Your task to perform on an android device: toggle location history Image 0: 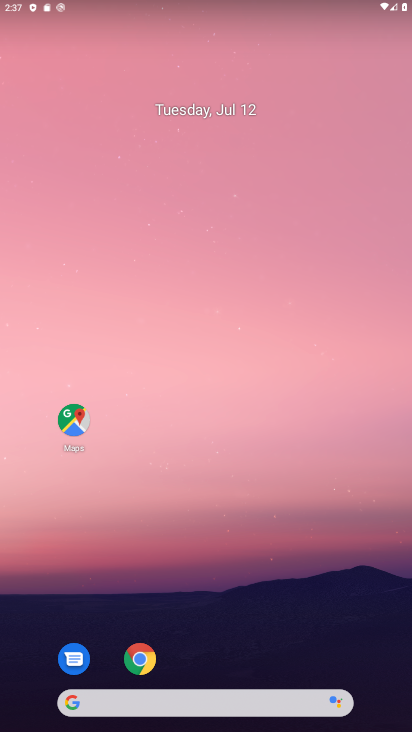
Step 0: drag from (246, 111) to (242, 65)
Your task to perform on an android device: toggle location history Image 1: 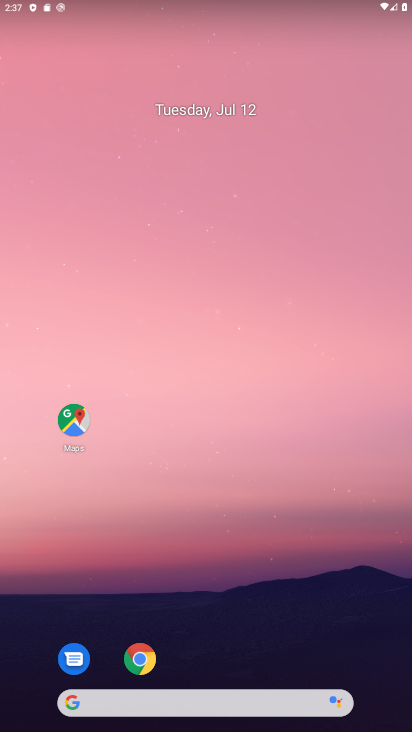
Step 1: drag from (186, 615) to (68, 94)
Your task to perform on an android device: toggle location history Image 2: 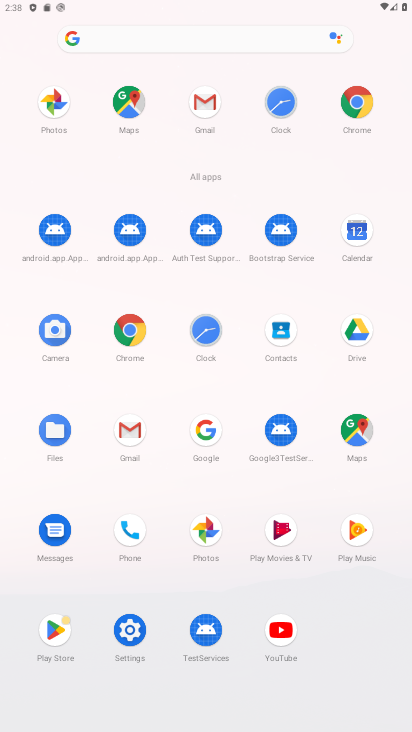
Step 2: click (367, 423)
Your task to perform on an android device: toggle location history Image 3: 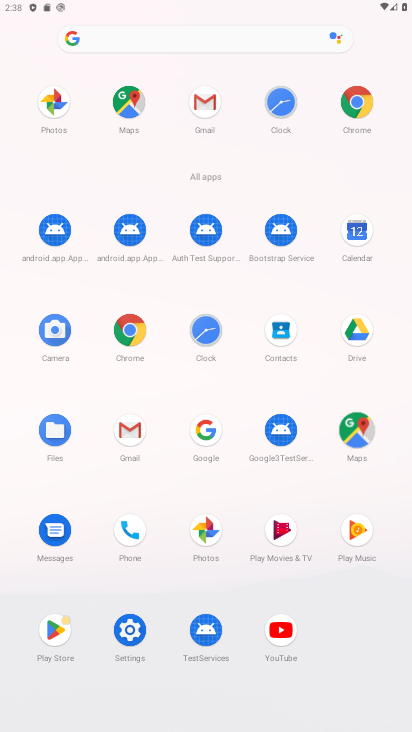
Step 3: click (368, 425)
Your task to perform on an android device: toggle location history Image 4: 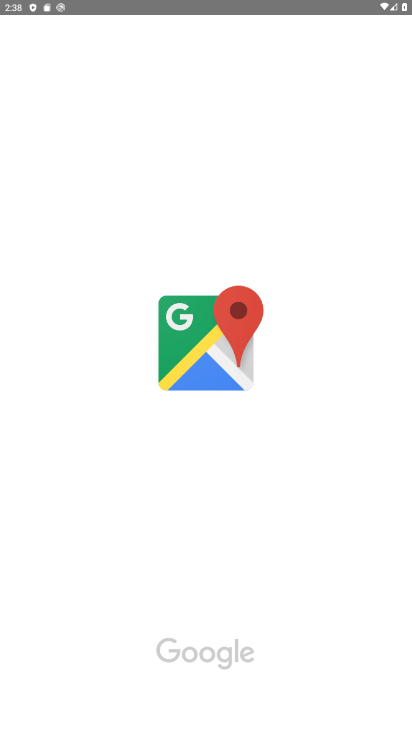
Step 4: click (368, 425)
Your task to perform on an android device: toggle location history Image 5: 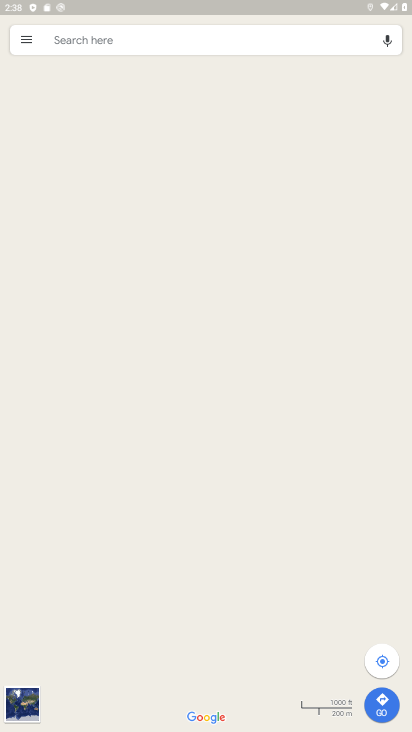
Step 5: click (17, 41)
Your task to perform on an android device: toggle location history Image 6: 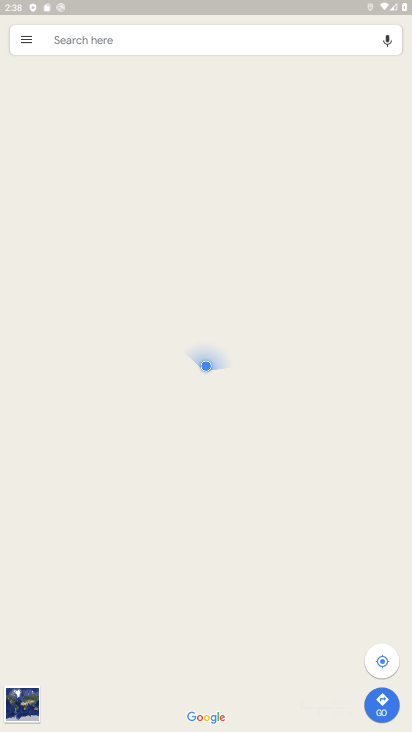
Step 6: click (14, 42)
Your task to perform on an android device: toggle location history Image 7: 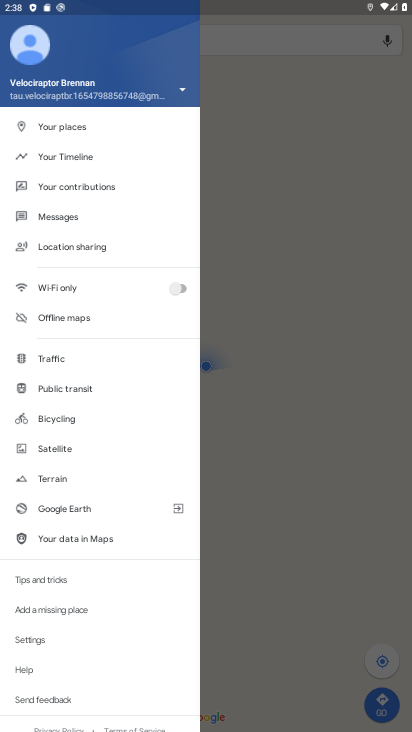
Step 7: click (61, 165)
Your task to perform on an android device: toggle location history Image 8: 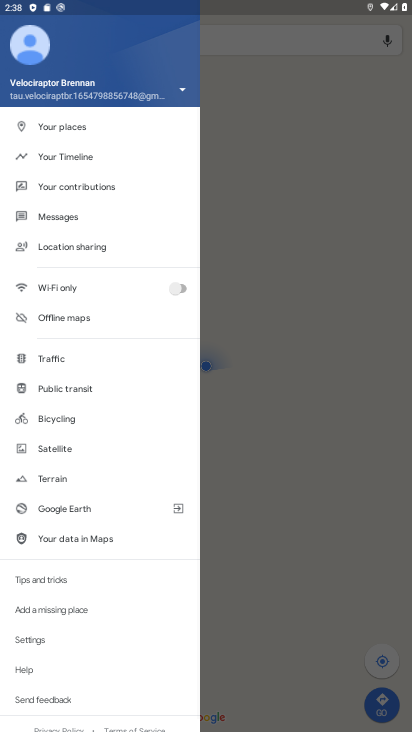
Step 8: click (61, 165)
Your task to perform on an android device: toggle location history Image 9: 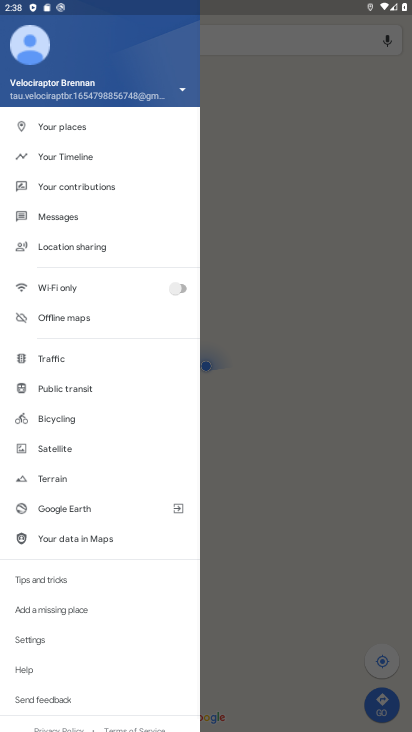
Step 9: click (61, 164)
Your task to perform on an android device: toggle location history Image 10: 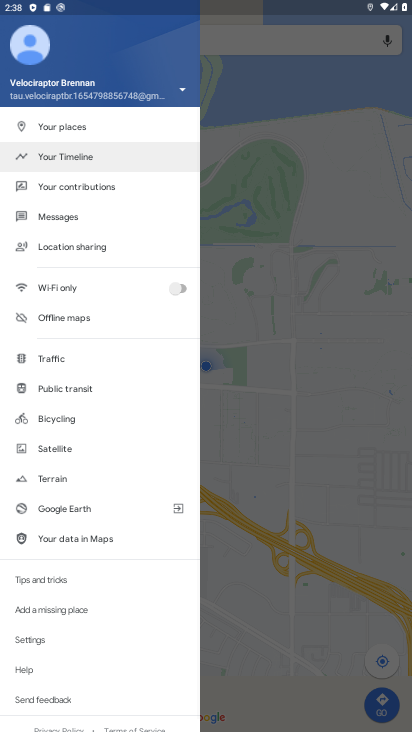
Step 10: click (62, 163)
Your task to perform on an android device: toggle location history Image 11: 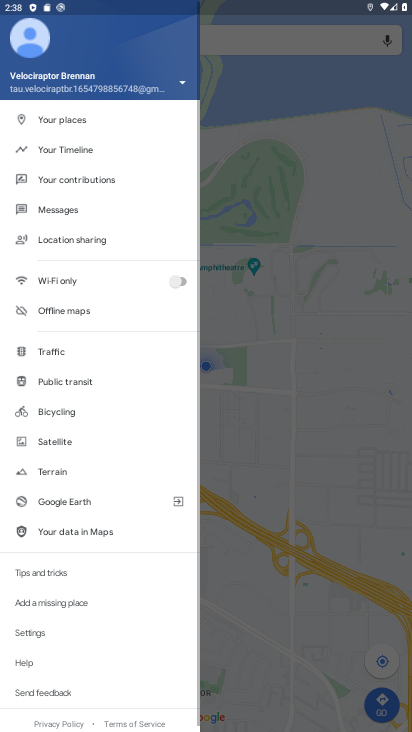
Step 11: click (71, 151)
Your task to perform on an android device: toggle location history Image 12: 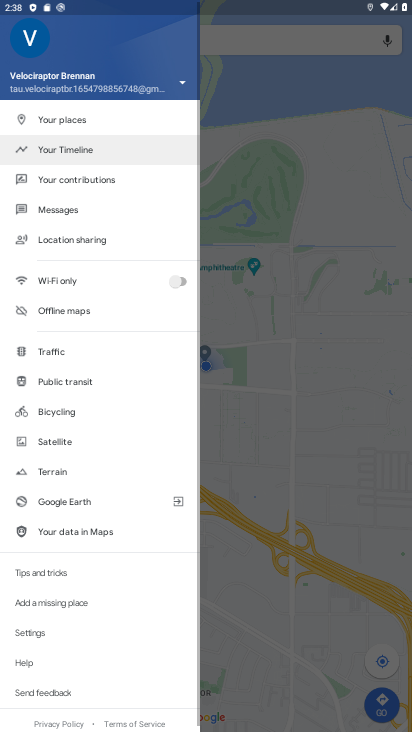
Step 12: click (71, 151)
Your task to perform on an android device: toggle location history Image 13: 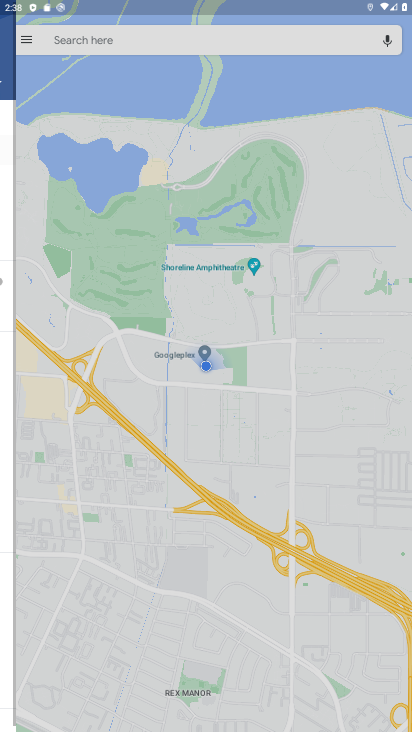
Step 13: click (71, 151)
Your task to perform on an android device: toggle location history Image 14: 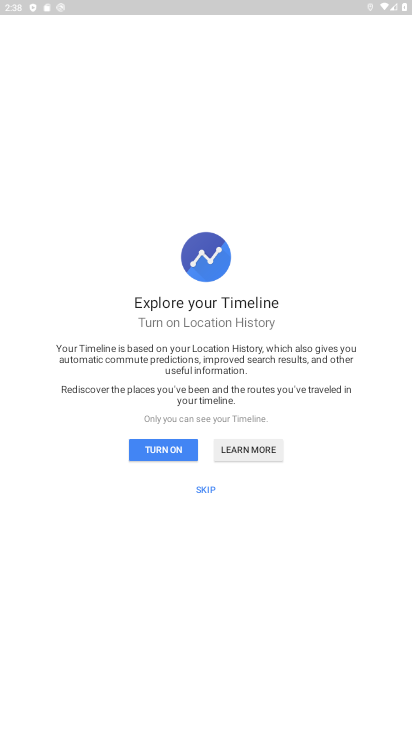
Step 14: click (248, 451)
Your task to perform on an android device: toggle location history Image 15: 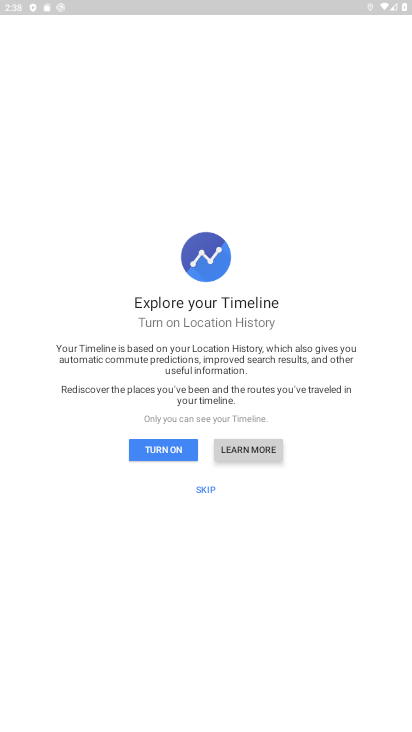
Step 15: click (252, 447)
Your task to perform on an android device: toggle location history Image 16: 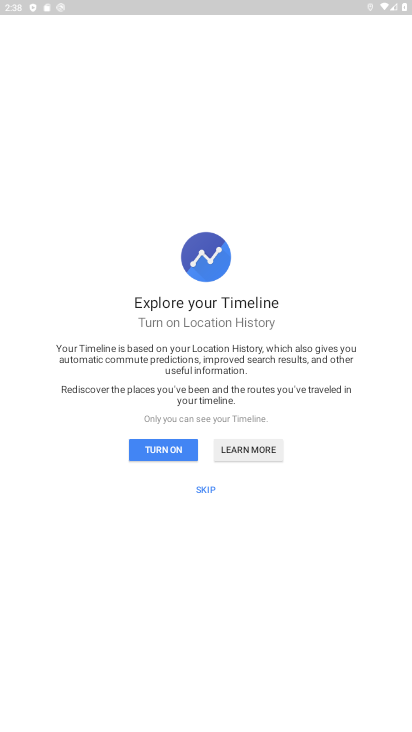
Step 16: click (252, 447)
Your task to perform on an android device: toggle location history Image 17: 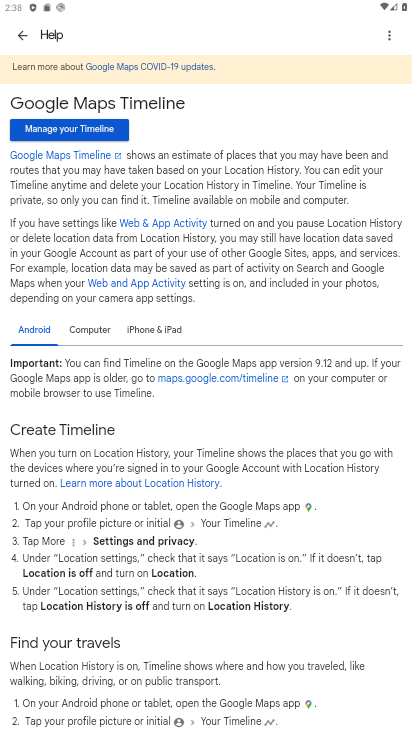
Step 17: click (379, 36)
Your task to perform on an android device: toggle location history Image 18: 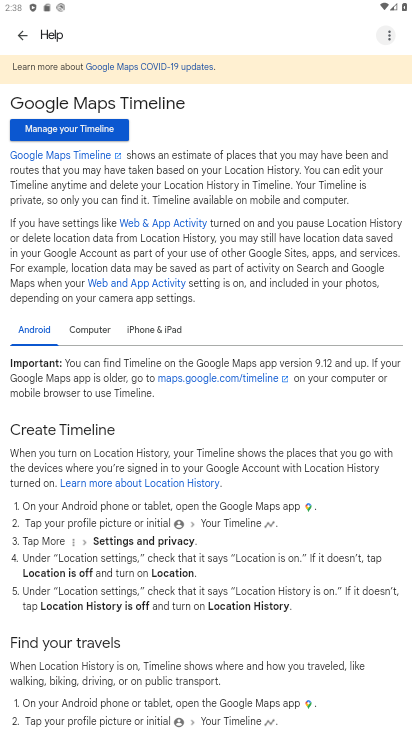
Step 18: click (387, 35)
Your task to perform on an android device: toggle location history Image 19: 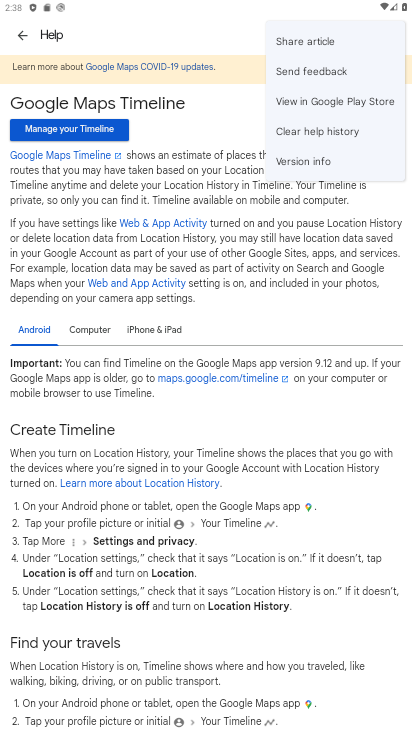
Step 19: press back button
Your task to perform on an android device: toggle location history Image 20: 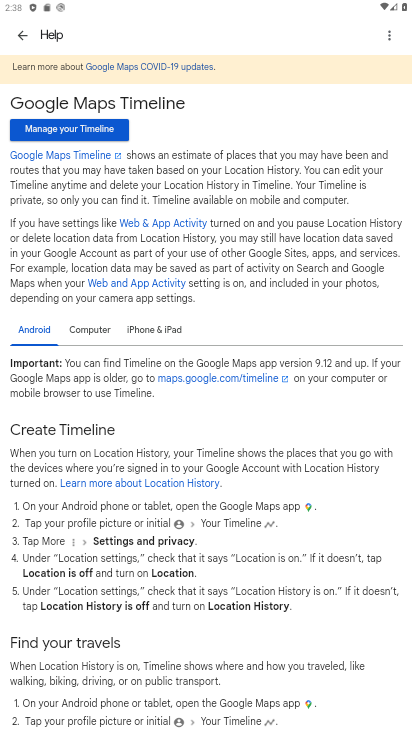
Step 20: press back button
Your task to perform on an android device: toggle location history Image 21: 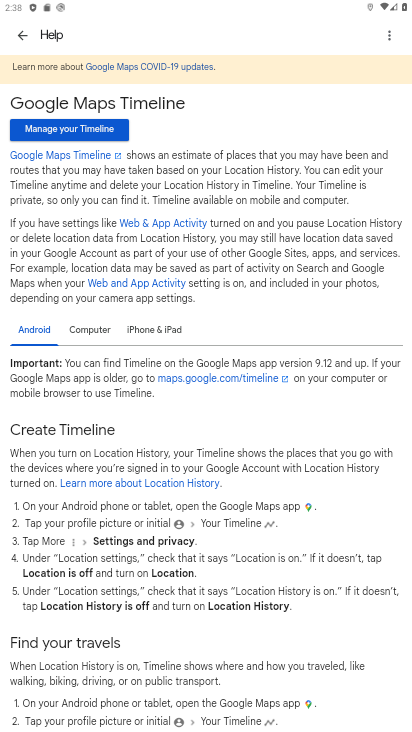
Step 21: press home button
Your task to perform on an android device: toggle location history Image 22: 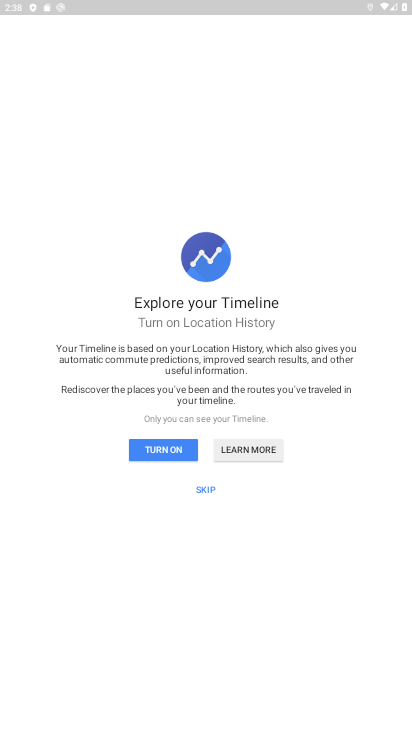
Step 22: press home button
Your task to perform on an android device: toggle location history Image 23: 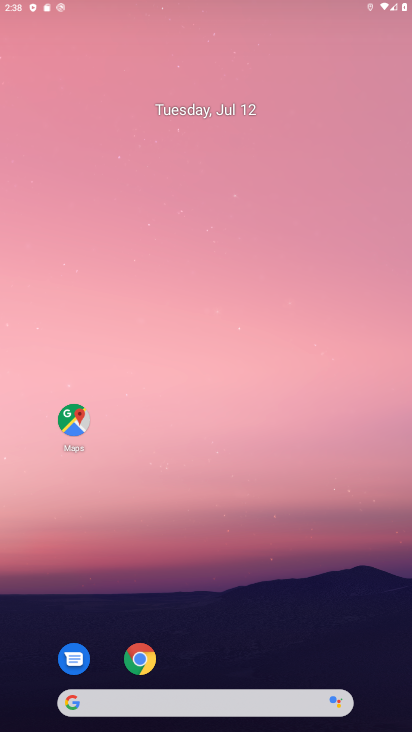
Step 23: press home button
Your task to perform on an android device: toggle location history Image 24: 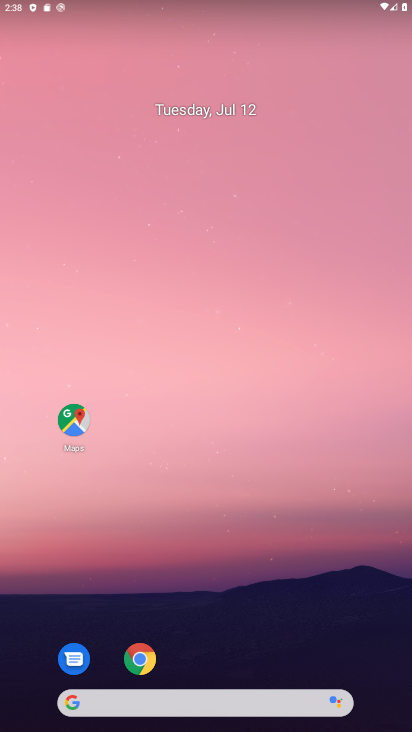
Step 24: press back button
Your task to perform on an android device: toggle location history Image 25: 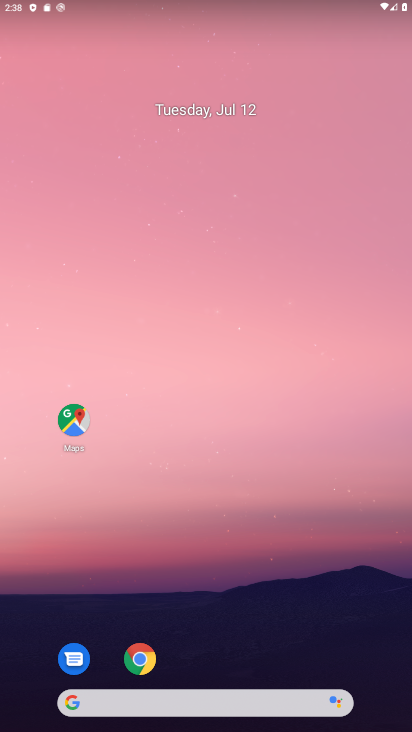
Step 25: press back button
Your task to perform on an android device: toggle location history Image 26: 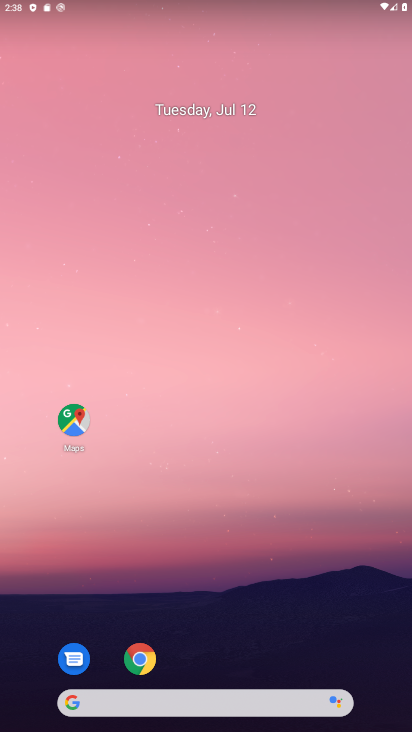
Step 26: drag from (214, 446) to (198, 169)
Your task to perform on an android device: toggle location history Image 27: 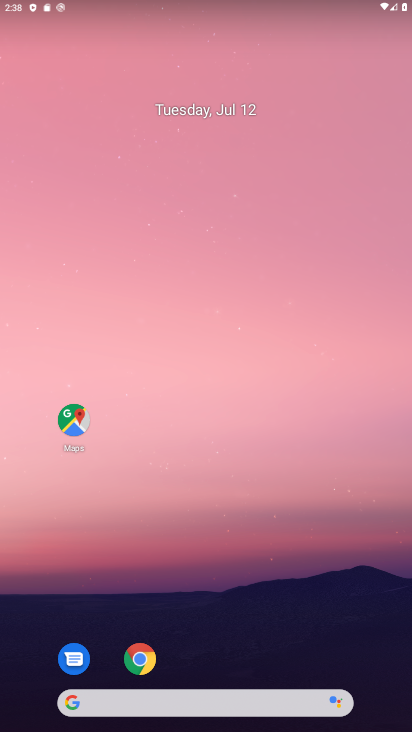
Step 27: drag from (217, 633) to (90, 175)
Your task to perform on an android device: toggle location history Image 28: 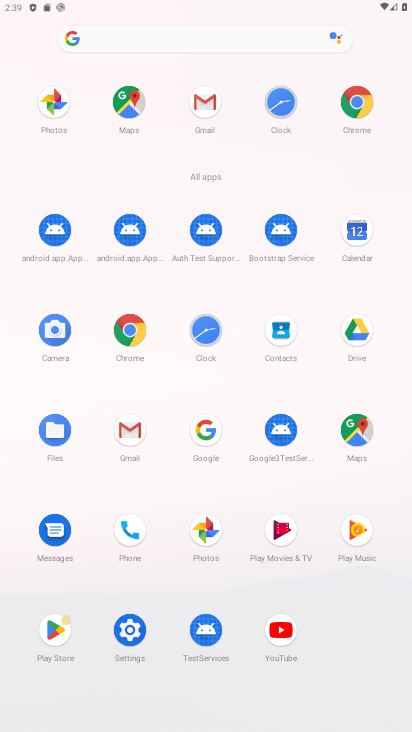
Step 28: click (132, 638)
Your task to perform on an android device: toggle location history Image 29: 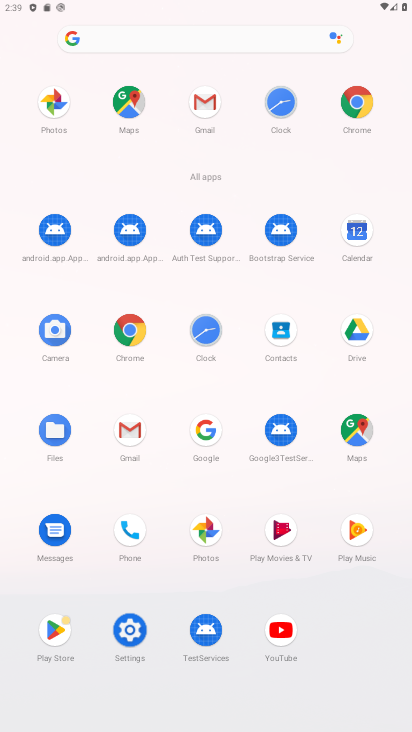
Step 29: click (132, 638)
Your task to perform on an android device: toggle location history Image 30: 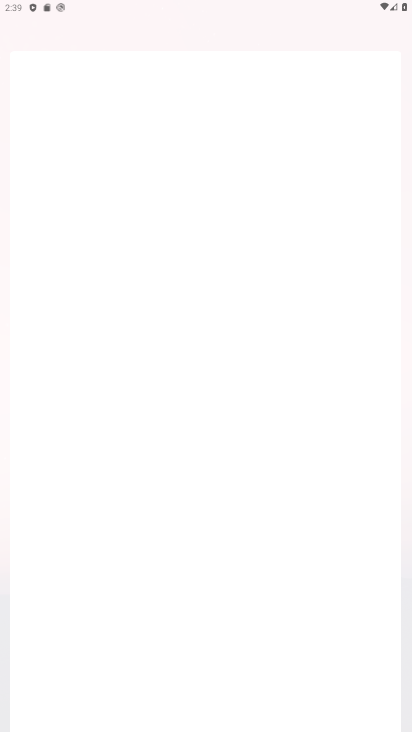
Step 30: click (134, 635)
Your task to perform on an android device: toggle location history Image 31: 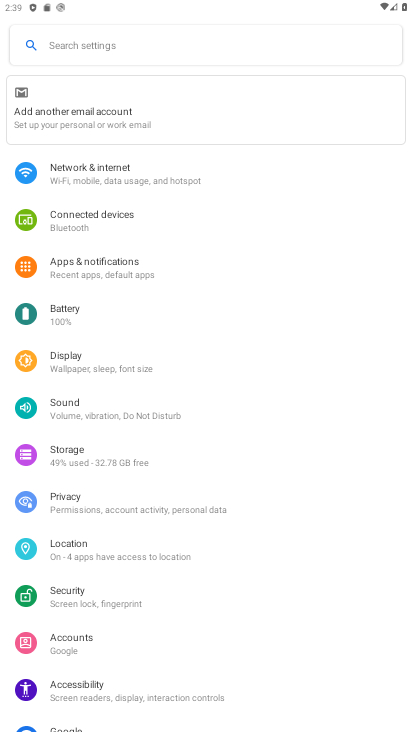
Step 31: click (69, 546)
Your task to perform on an android device: toggle location history Image 32: 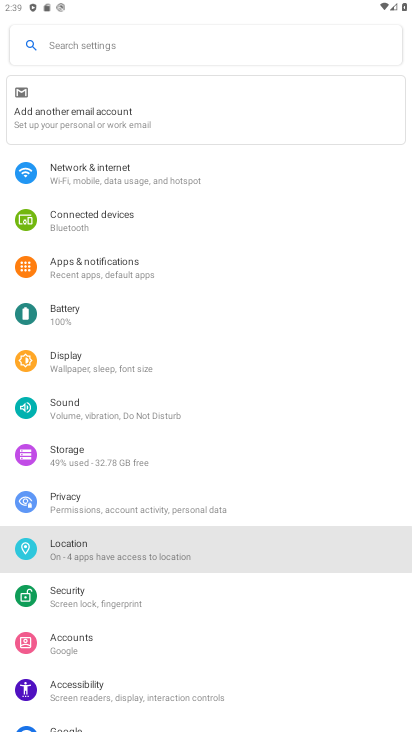
Step 32: click (69, 546)
Your task to perform on an android device: toggle location history Image 33: 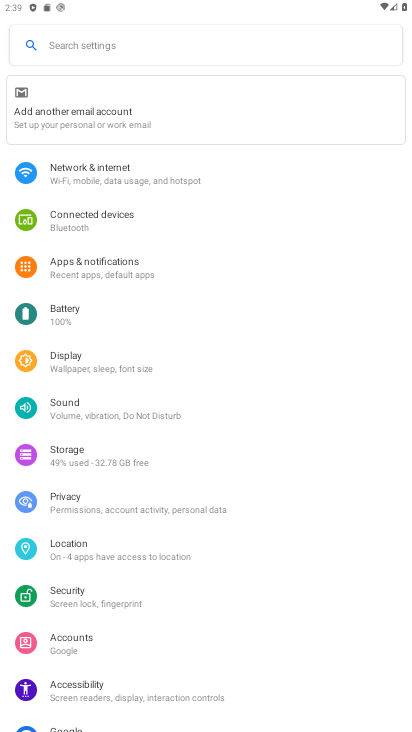
Step 33: click (69, 546)
Your task to perform on an android device: toggle location history Image 34: 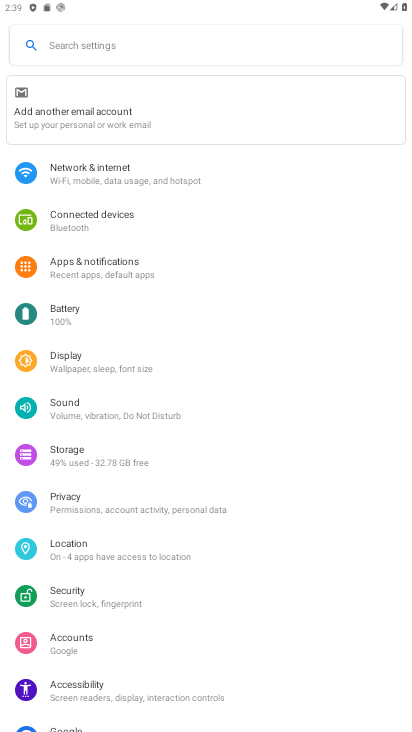
Step 34: click (69, 547)
Your task to perform on an android device: toggle location history Image 35: 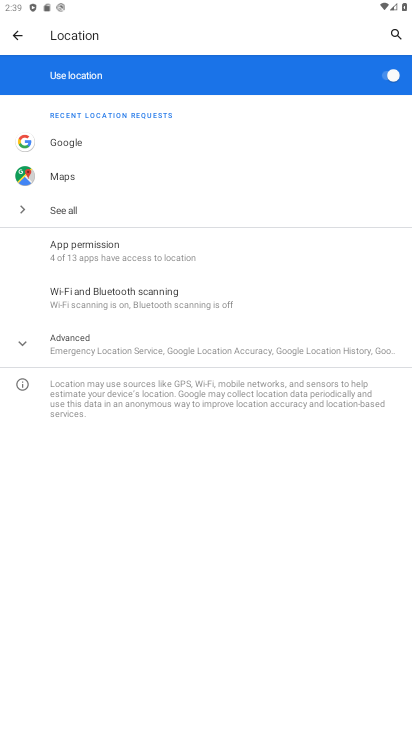
Step 35: click (81, 338)
Your task to perform on an android device: toggle location history Image 36: 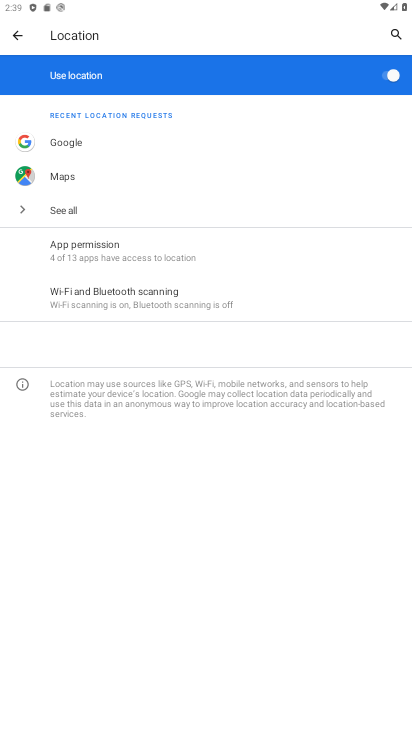
Step 36: click (81, 338)
Your task to perform on an android device: toggle location history Image 37: 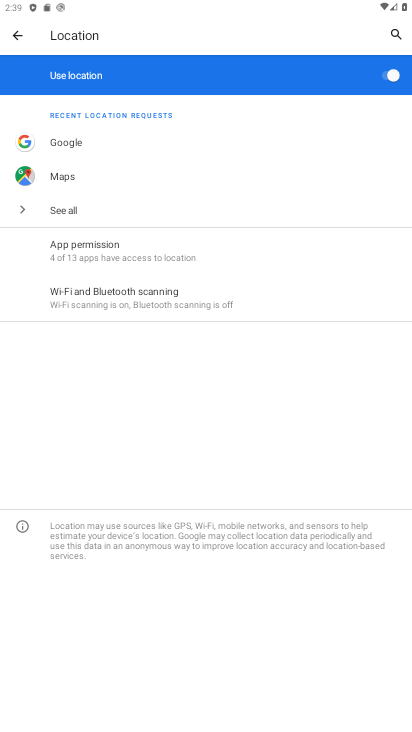
Step 37: click (83, 339)
Your task to perform on an android device: toggle location history Image 38: 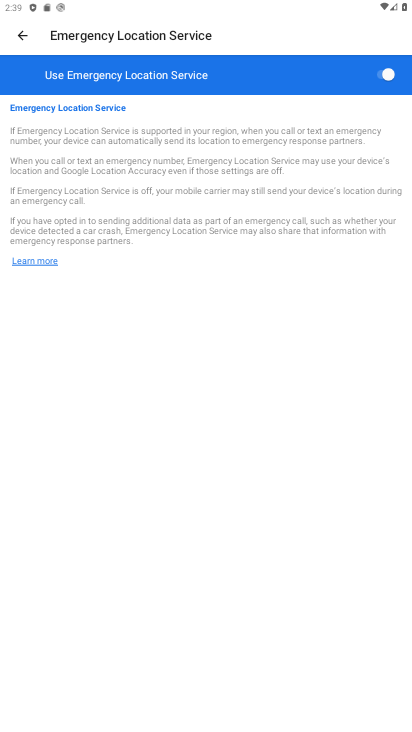
Step 38: click (20, 31)
Your task to perform on an android device: toggle location history Image 39: 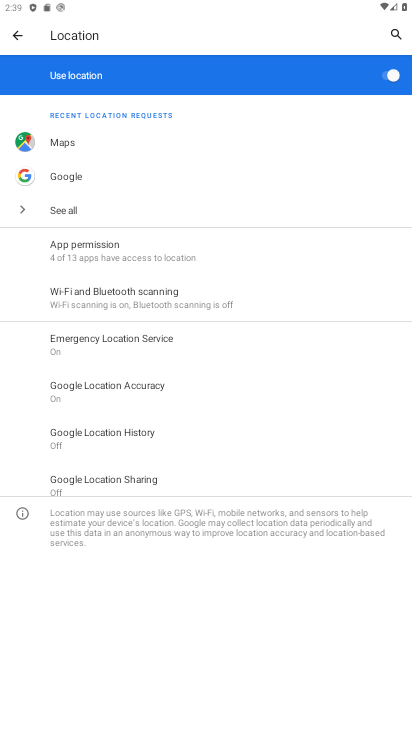
Step 39: click (125, 436)
Your task to perform on an android device: toggle location history Image 40: 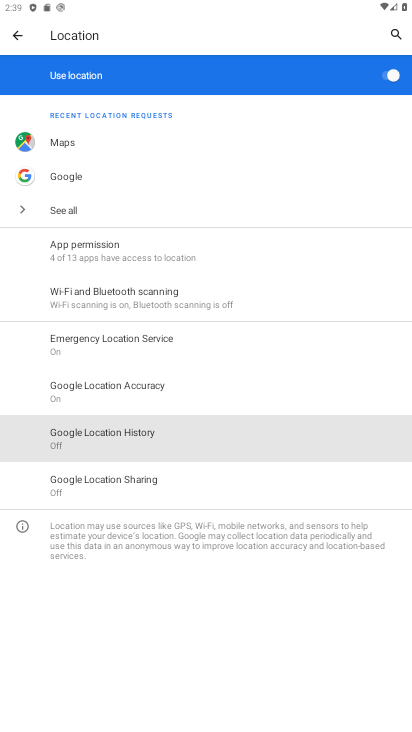
Step 40: click (125, 436)
Your task to perform on an android device: toggle location history Image 41: 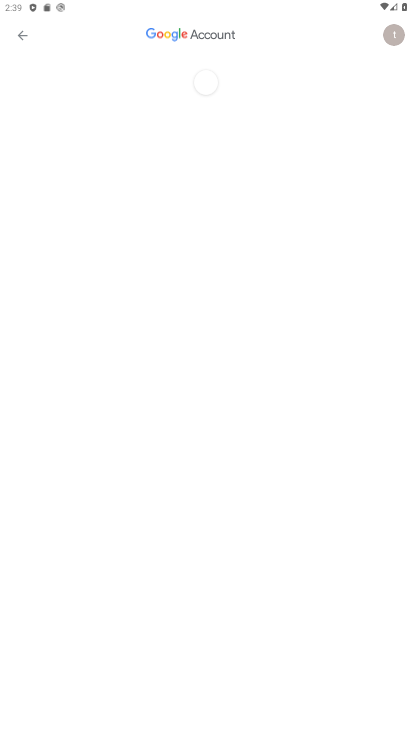
Step 41: task complete